Your task to perform on an android device: Turn off the flashlight Image 0: 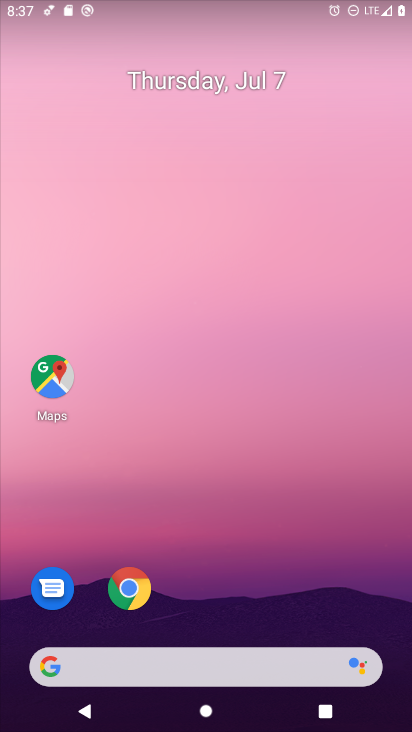
Step 0: drag from (242, 580) to (263, 288)
Your task to perform on an android device: Turn off the flashlight Image 1: 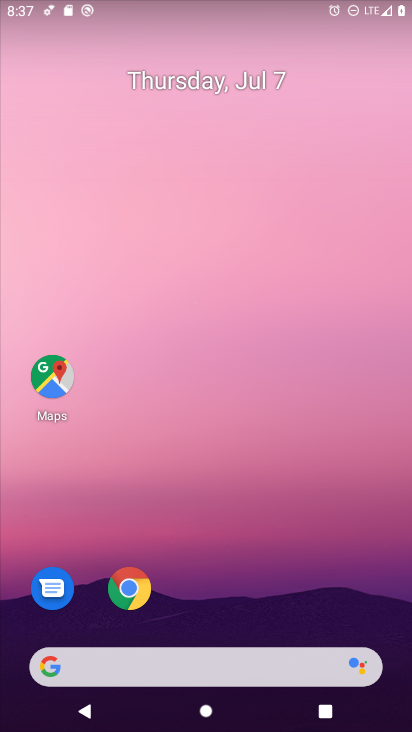
Step 1: drag from (242, 548) to (291, 271)
Your task to perform on an android device: Turn off the flashlight Image 2: 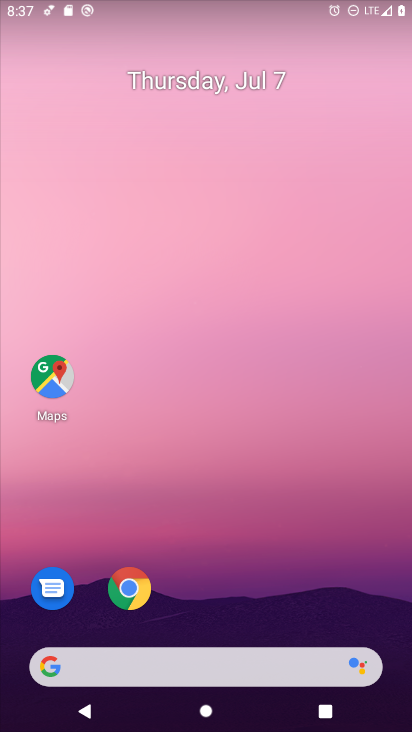
Step 2: drag from (254, 640) to (273, 279)
Your task to perform on an android device: Turn off the flashlight Image 3: 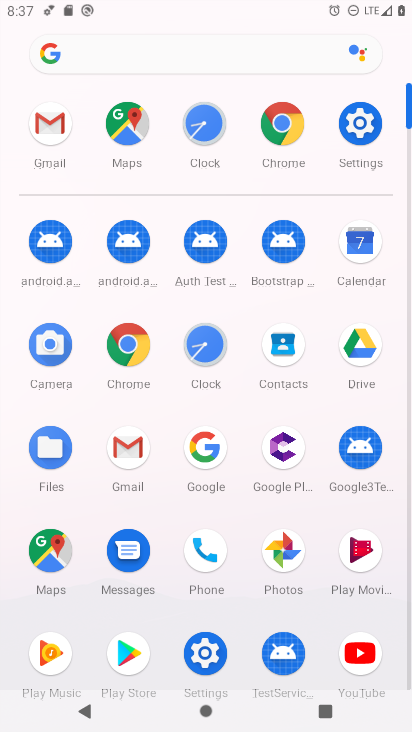
Step 3: click (364, 125)
Your task to perform on an android device: Turn off the flashlight Image 4: 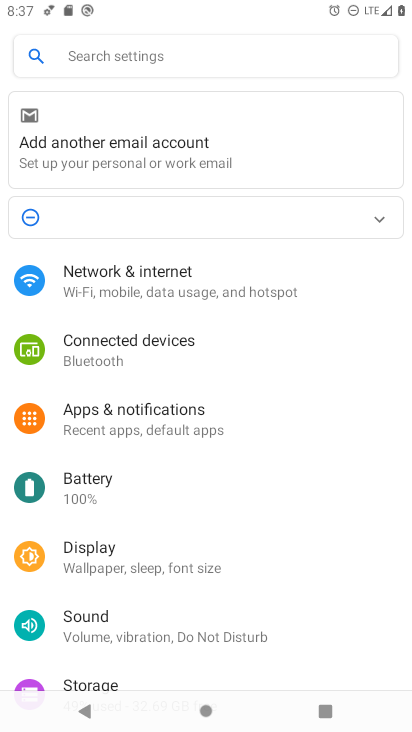
Step 4: task complete